Your task to perform on an android device: Show me recent news Image 0: 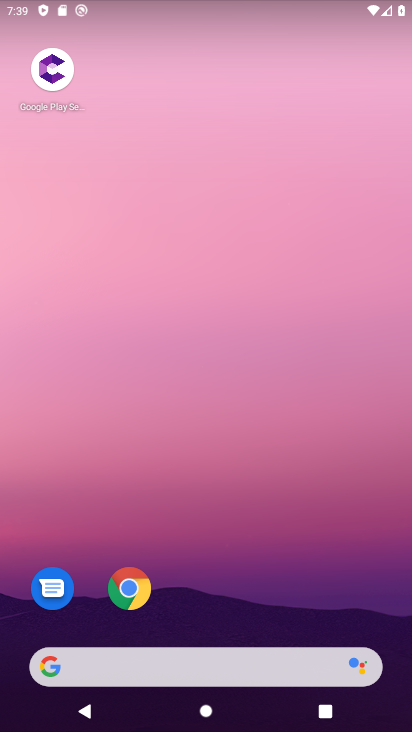
Step 0: drag from (238, 594) to (291, 17)
Your task to perform on an android device: Show me recent news Image 1: 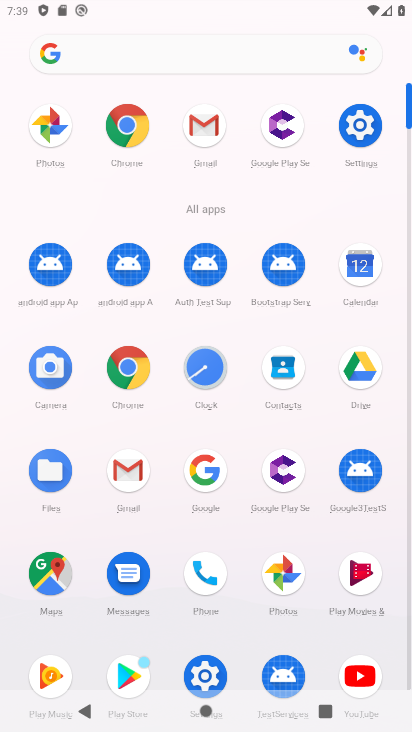
Step 1: click (118, 160)
Your task to perform on an android device: Show me recent news Image 2: 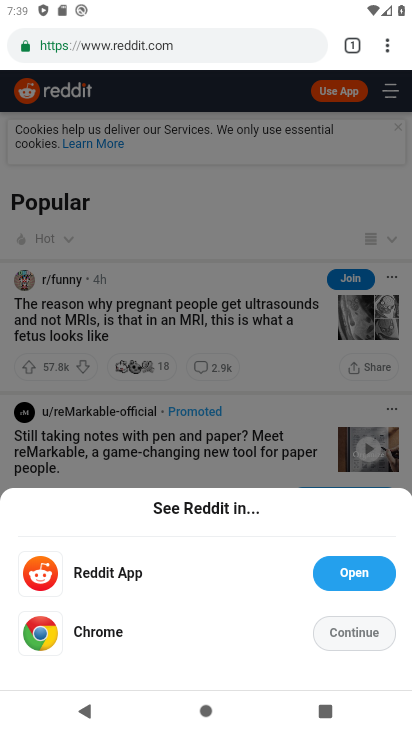
Step 2: click (135, 52)
Your task to perform on an android device: Show me recent news Image 3: 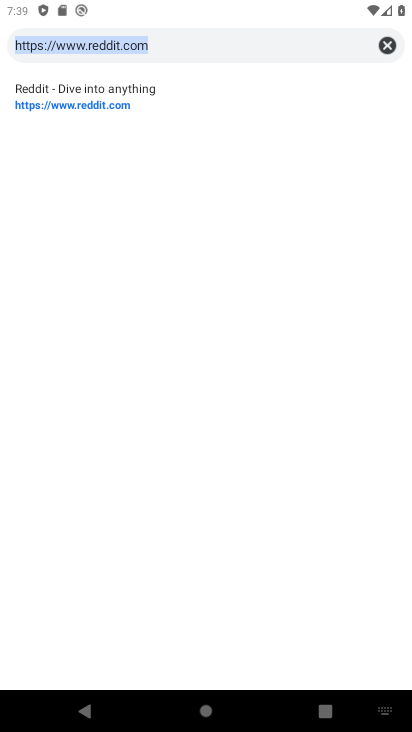
Step 3: type "recent news"
Your task to perform on an android device: Show me recent news Image 4: 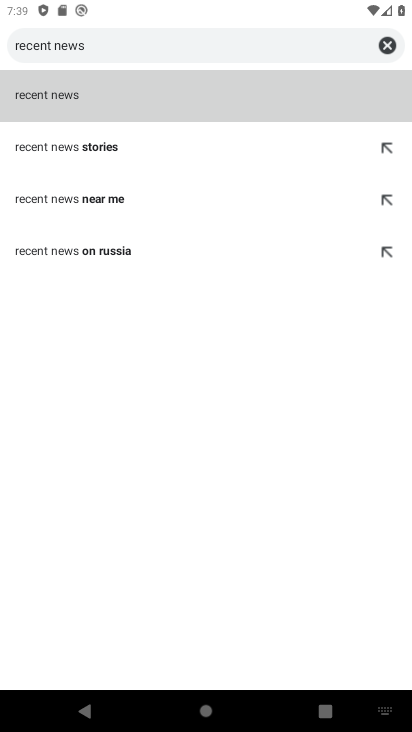
Step 4: click (36, 105)
Your task to perform on an android device: Show me recent news Image 5: 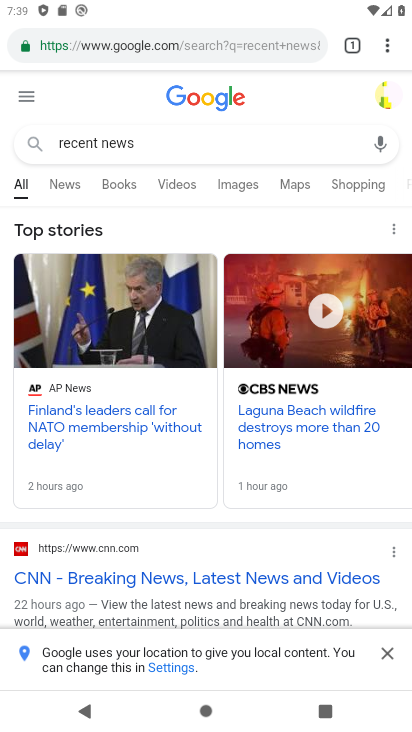
Step 5: task complete